Your task to perform on an android device: snooze an email in the gmail app Image 0: 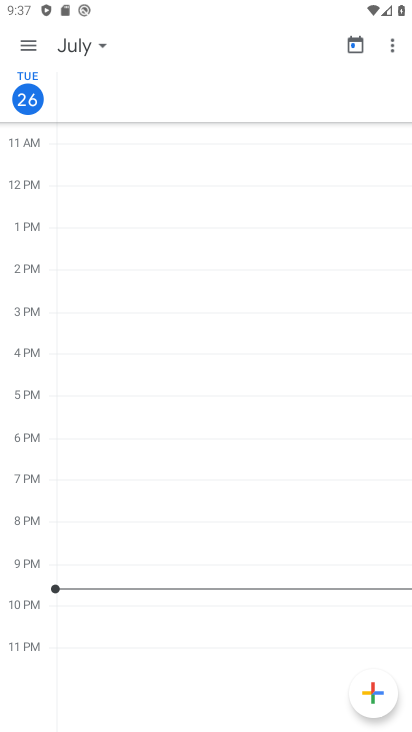
Step 0: press home button
Your task to perform on an android device: snooze an email in the gmail app Image 1: 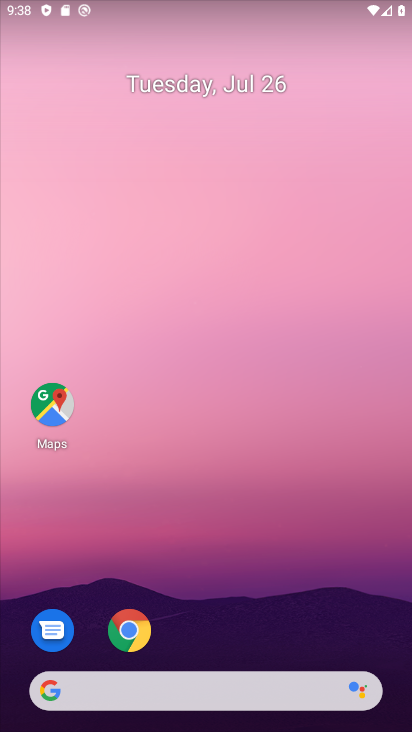
Step 1: drag from (384, 643) to (319, 191)
Your task to perform on an android device: snooze an email in the gmail app Image 2: 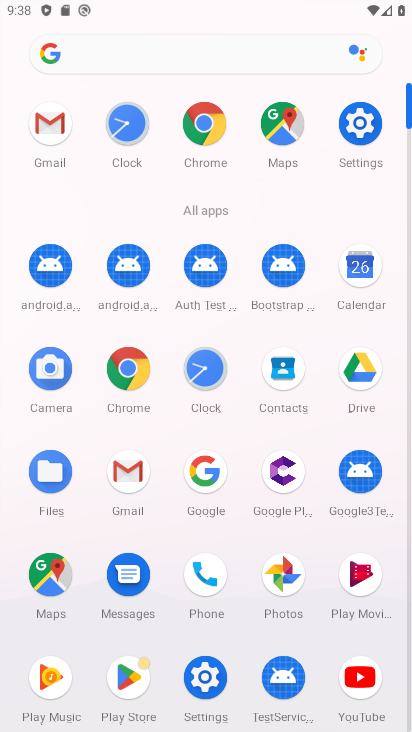
Step 2: click (126, 466)
Your task to perform on an android device: snooze an email in the gmail app Image 3: 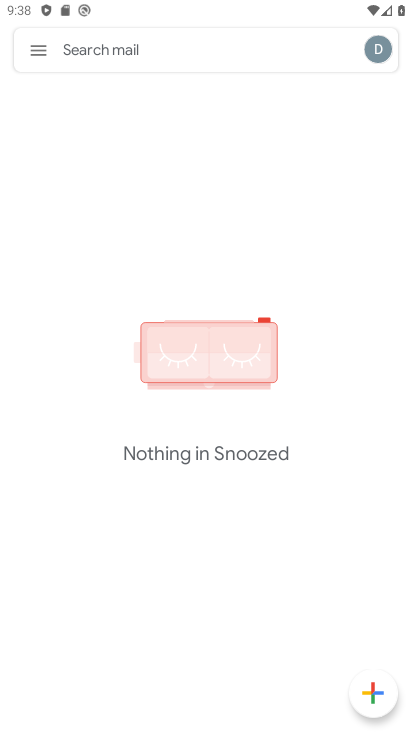
Step 3: click (39, 50)
Your task to perform on an android device: snooze an email in the gmail app Image 4: 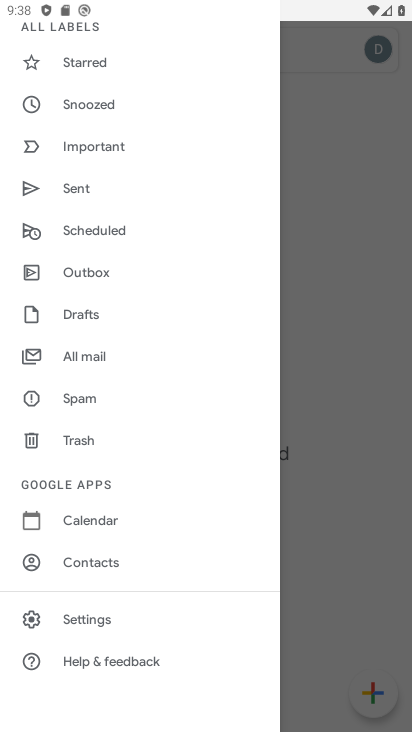
Step 4: click (91, 350)
Your task to perform on an android device: snooze an email in the gmail app Image 5: 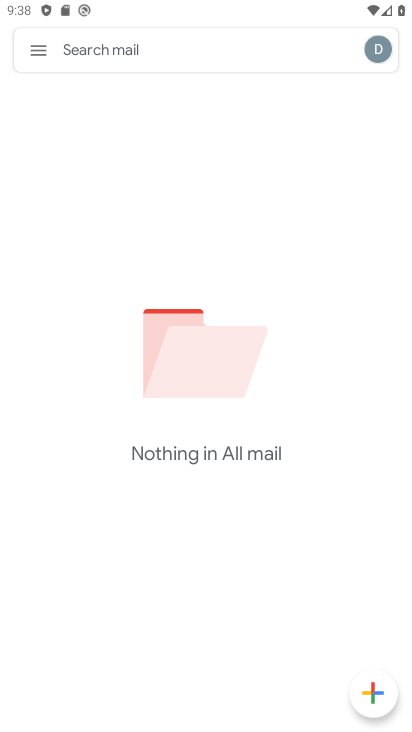
Step 5: task complete